Your task to perform on an android device: change timer sound Image 0: 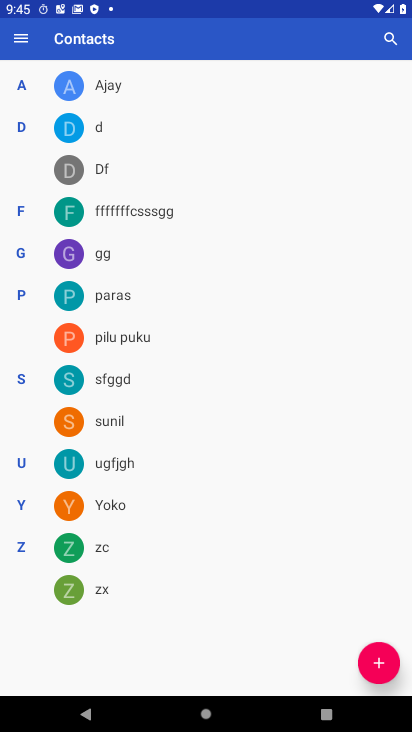
Step 0: press home button
Your task to perform on an android device: change timer sound Image 1: 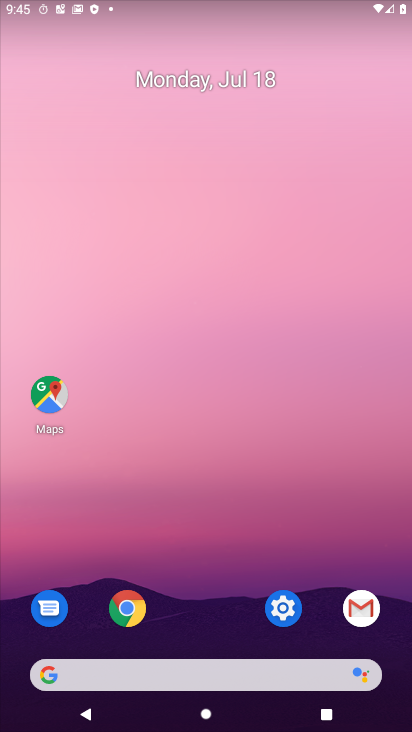
Step 1: click (290, 614)
Your task to perform on an android device: change timer sound Image 2: 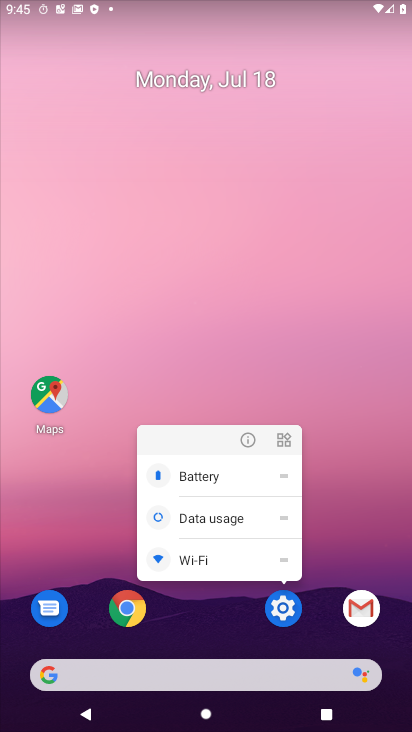
Step 2: click (270, 275)
Your task to perform on an android device: change timer sound Image 3: 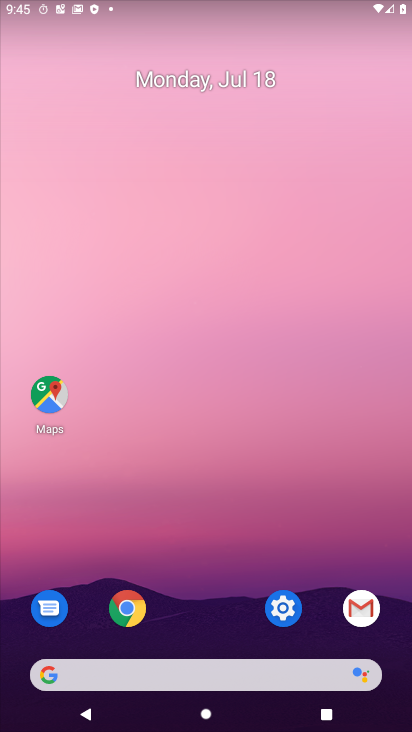
Step 3: drag from (236, 683) to (370, 10)
Your task to perform on an android device: change timer sound Image 4: 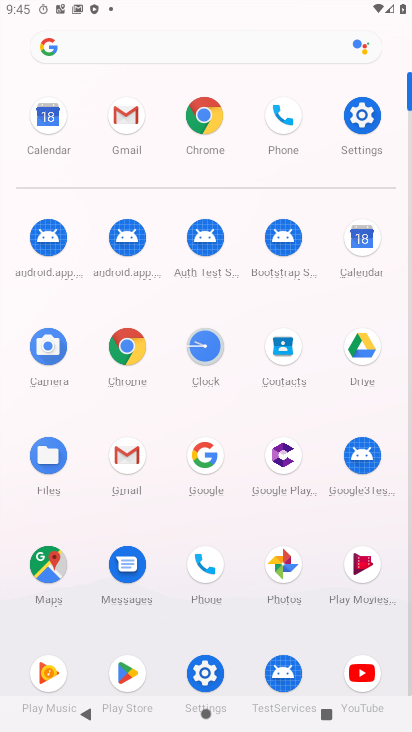
Step 4: click (199, 363)
Your task to perform on an android device: change timer sound Image 5: 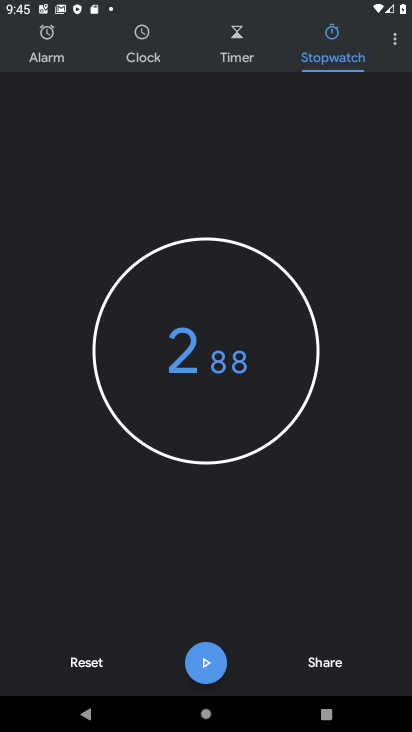
Step 5: click (397, 52)
Your task to perform on an android device: change timer sound Image 6: 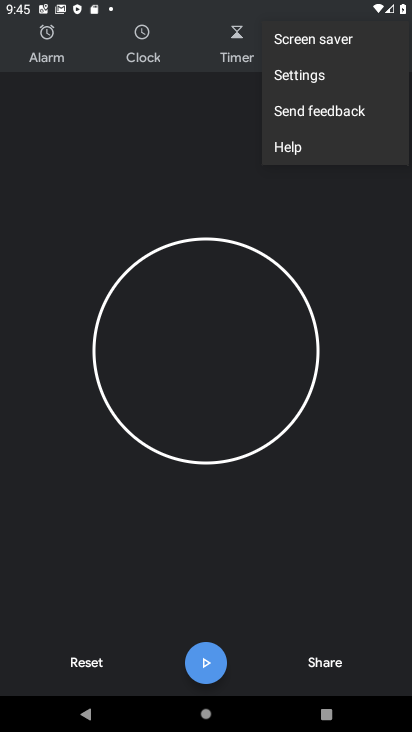
Step 6: click (315, 74)
Your task to perform on an android device: change timer sound Image 7: 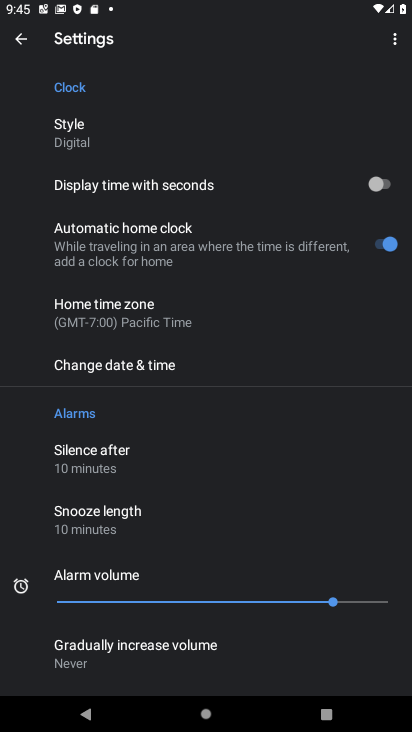
Step 7: drag from (159, 526) to (265, 91)
Your task to perform on an android device: change timer sound Image 8: 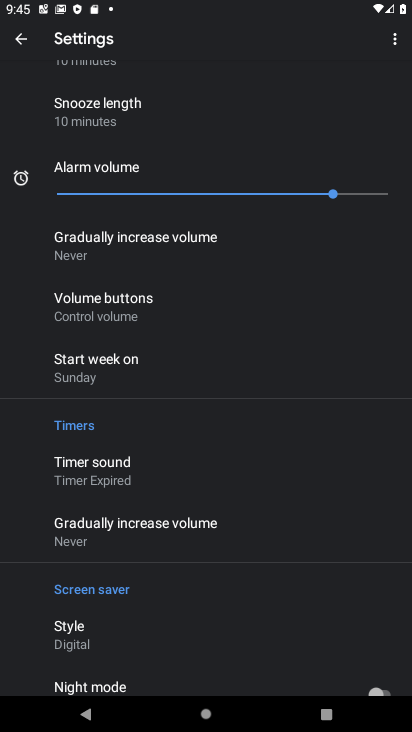
Step 8: click (169, 473)
Your task to perform on an android device: change timer sound Image 9: 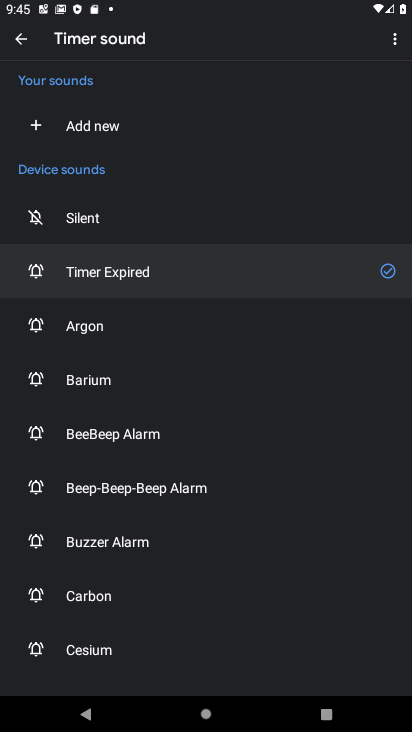
Step 9: click (88, 386)
Your task to perform on an android device: change timer sound Image 10: 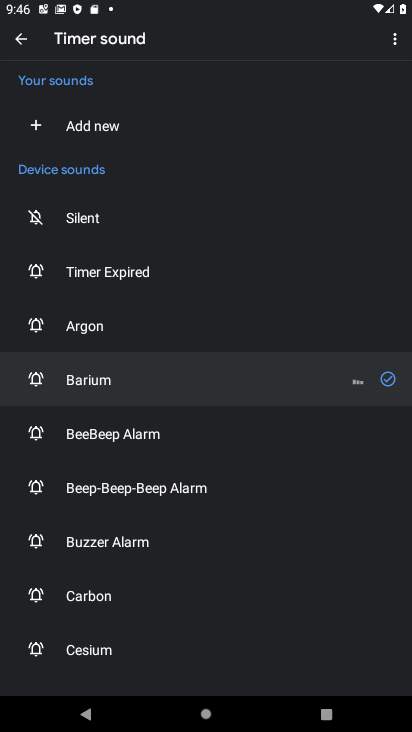
Step 10: task complete